Your task to perform on an android device: Search for sushi restaurants on Maps Image 0: 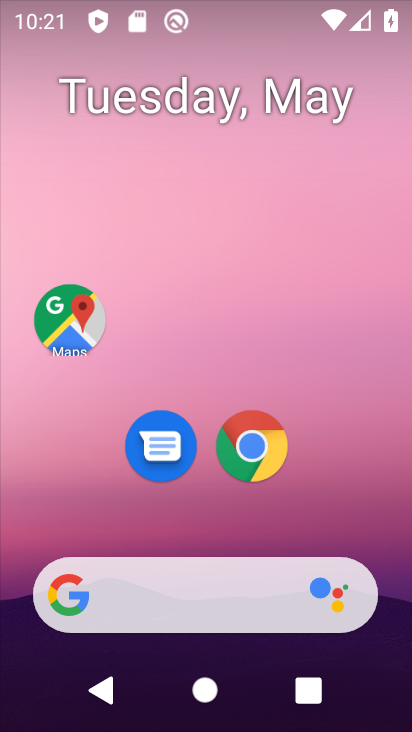
Step 0: click (74, 317)
Your task to perform on an android device: Search for sushi restaurants on Maps Image 1: 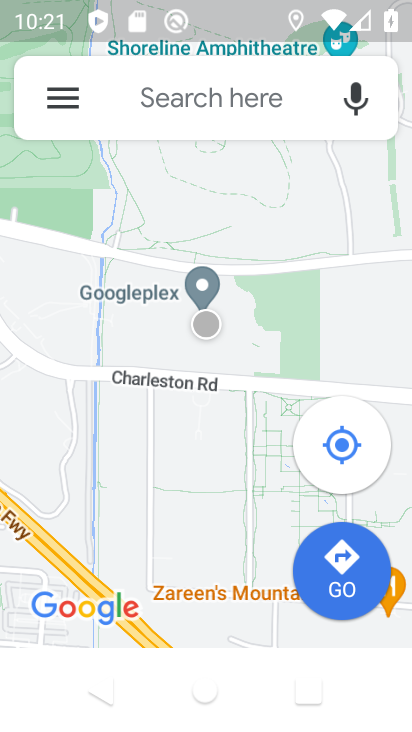
Step 1: click (176, 110)
Your task to perform on an android device: Search for sushi restaurants on Maps Image 2: 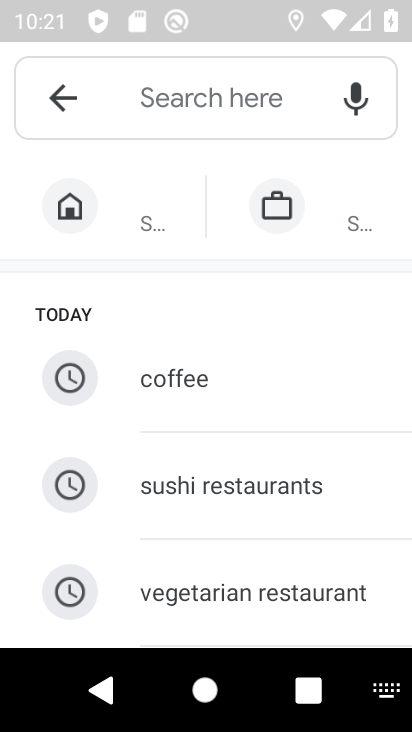
Step 2: type "sushi restaurants"
Your task to perform on an android device: Search for sushi restaurants on Maps Image 3: 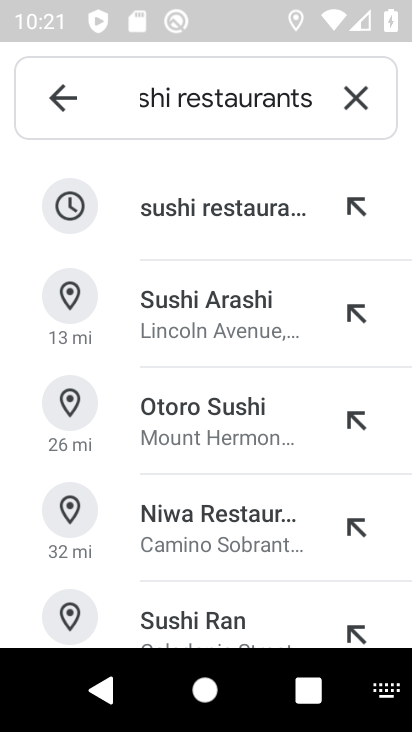
Step 3: click (233, 211)
Your task to perform on an android device: Search for sushi restaurants on Maps Image 4: 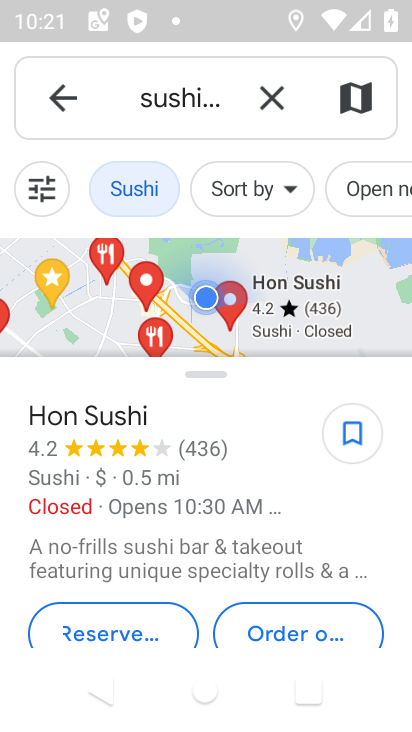
Step 4: task complete